Your task to perform on an android device: Open Google Maps Image 0: 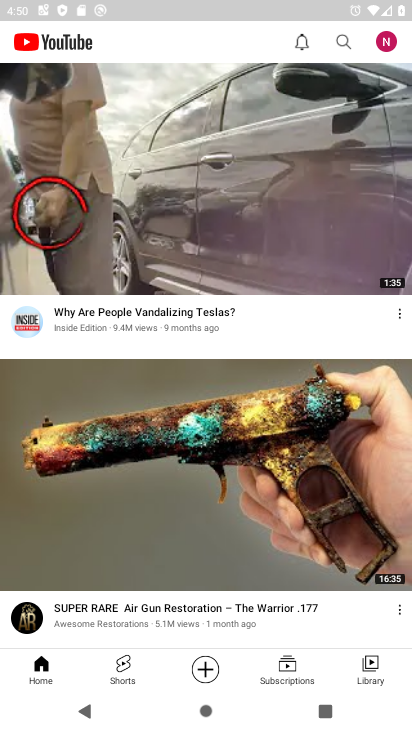
Step 0: press home button
Your task to perform on an android device: Open Google Maps Image 1: 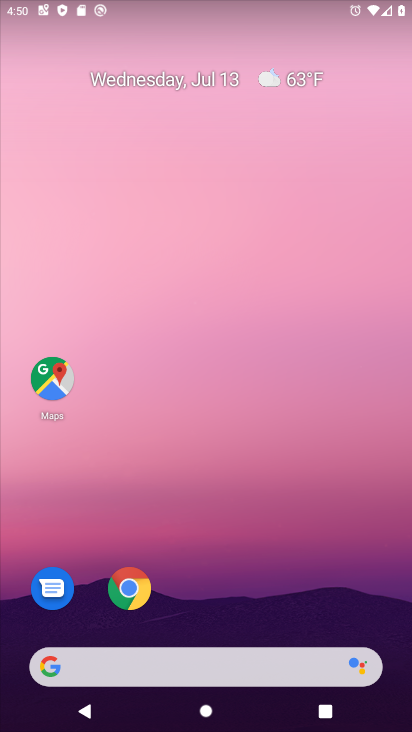
Step 1: click (50, 378)
Your task to perform on an android device: Open Google Maps Image 2: 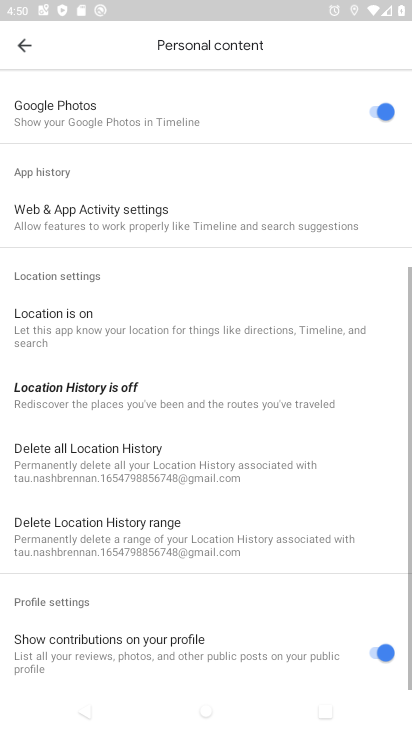
Step 2: task complete